Your task to perform on an android device: Search for seafood restaurants on Google Maps Image 0: 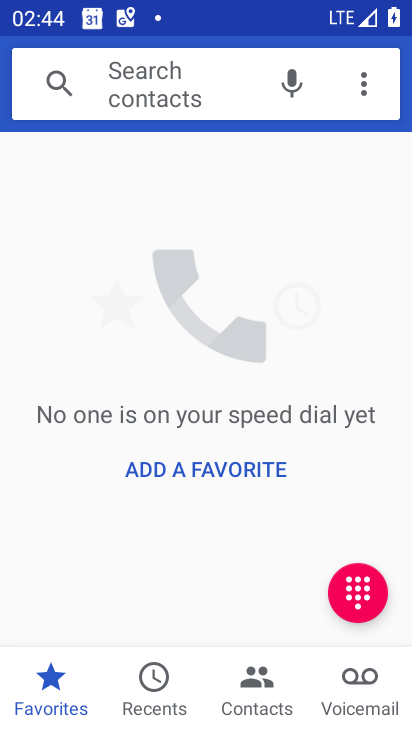
Step 0: press back button
Your task to perform on an android device: Search for seafood restaurants on Google Maps Image 1: 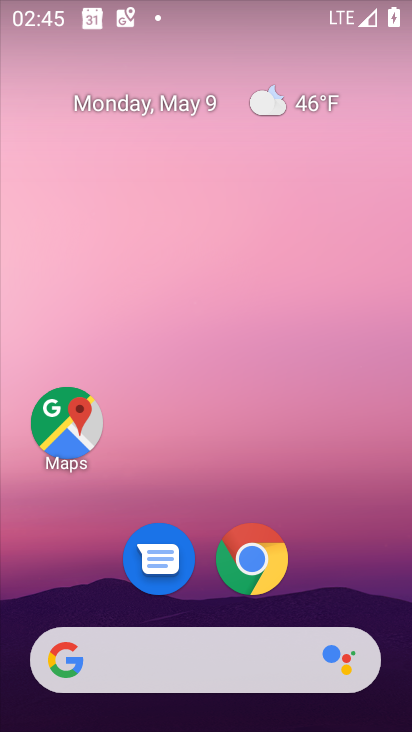
Step 1: click (62, 426)
Your task to perform on an android device: Search for seafood restaurants on Google Maps Image 2: 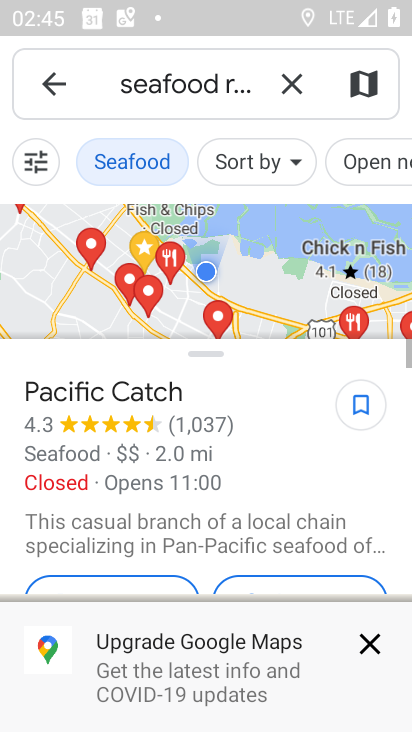
Step 2: click (284, 84)
Your task to perform on an android device: Search for seafood restaurants on Google Maps Image 3: 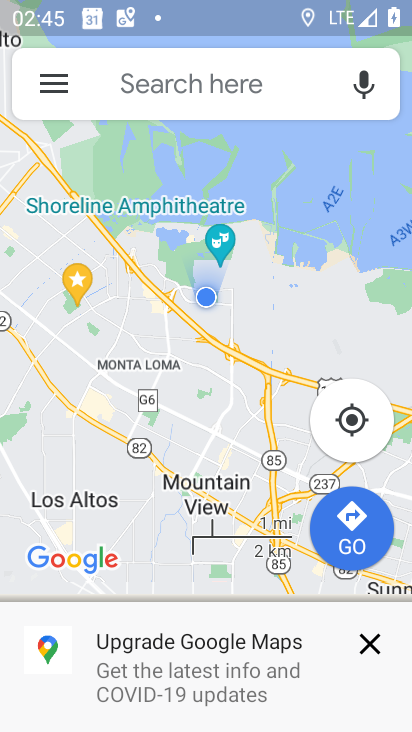
Step 3: click (241, 66)
Your task to perform on an android device: Search for seafood restaurants on Google Maps Image 4: 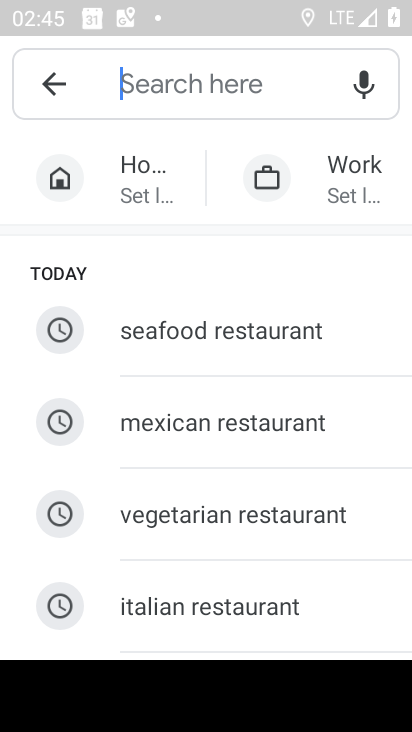
Step 4: type "seafood"
Your task to perform on an android device: Search for seafood restaurants on Google Maps Image 5: 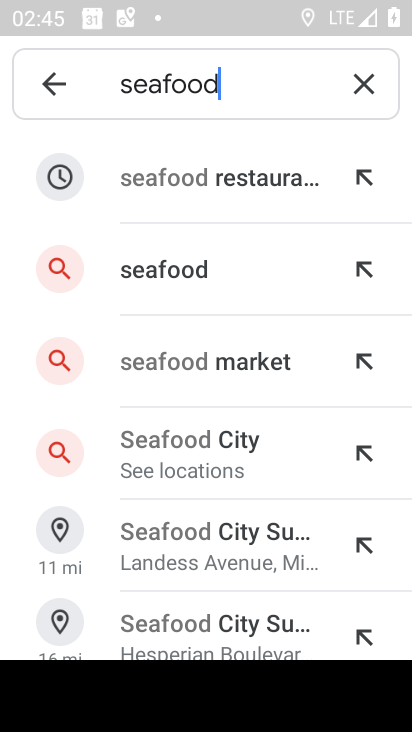
Step 5: click (190, 184)
Your task to perform on an android device: Search for seafood restaurants on Google Maps Image 6: 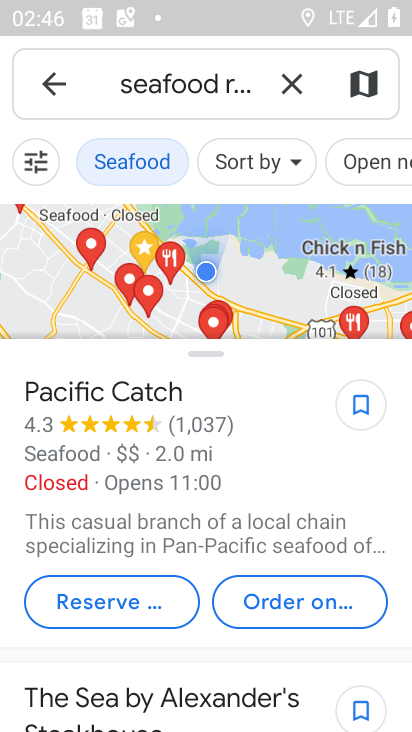
Step 6: task complete